Your task to perform on an android device: Go to Reddit.com Image 0: 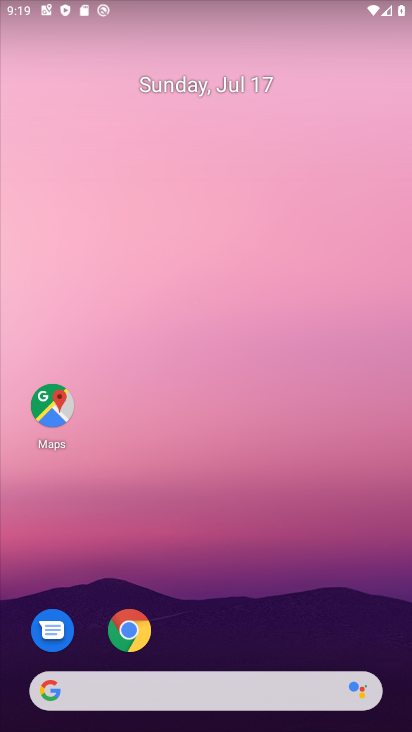
Step 0: drag from (279, 678) to (311, 2)
Your task to perform on an android device: Go to Reddit.com Image 1: 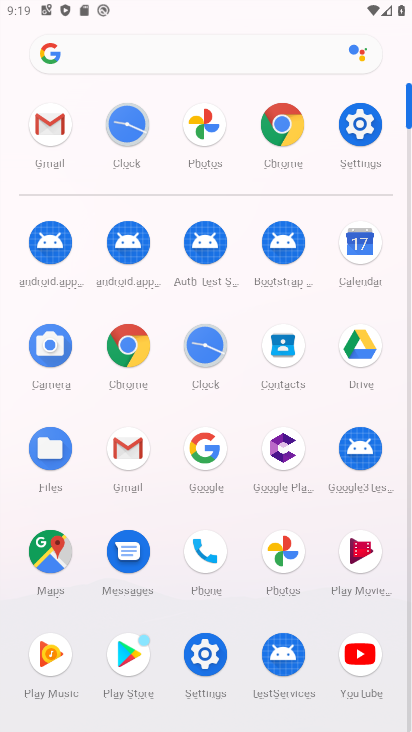
Step 1: click (131, 339)
Your task to perform on an android device: Go to Reddit.com Image 2: 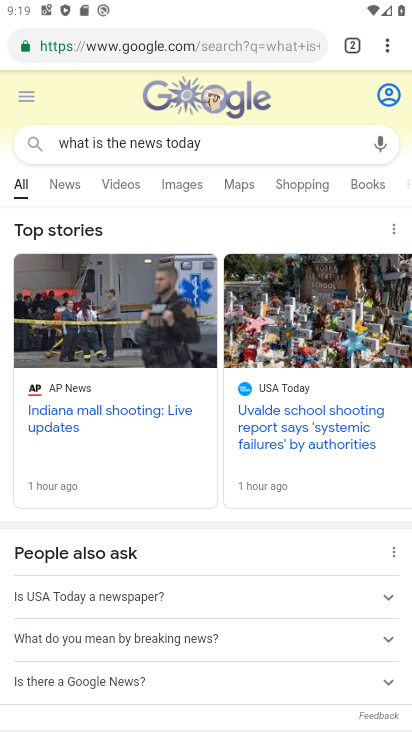
Step 2: drag from (378, 44) to (256, 520)
Your task to perform on an android device: Go to Reddit.com Image 3: 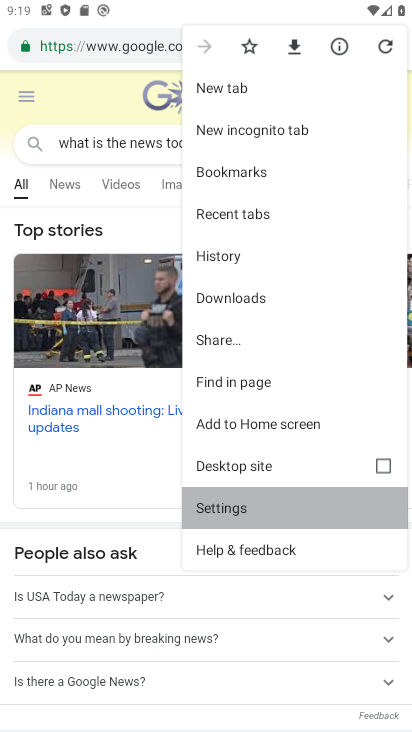
Step 3: click (254, 515)
Your task to perform on an android device: Go to Reddit.com Image 4: 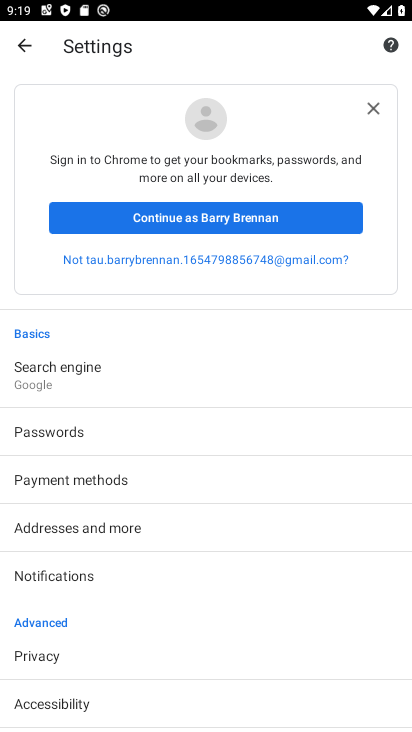
Step 4: press back button
Your task to perform on an android device: Go to Reddit.com Image 5: 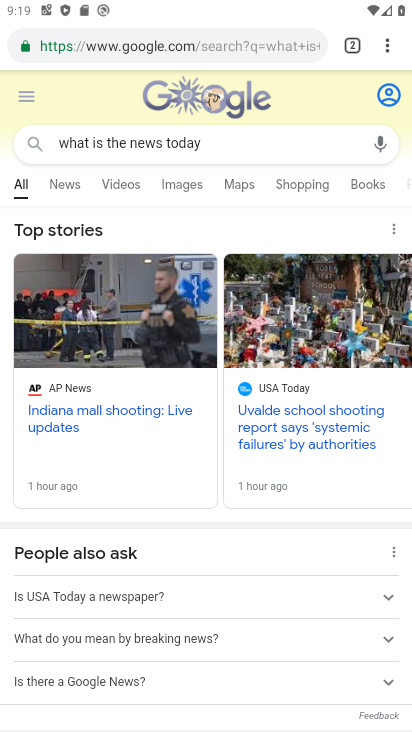
Step 5: click (174, 47)
Your task to perform on an android device: Go to Reddit.com Image 6: 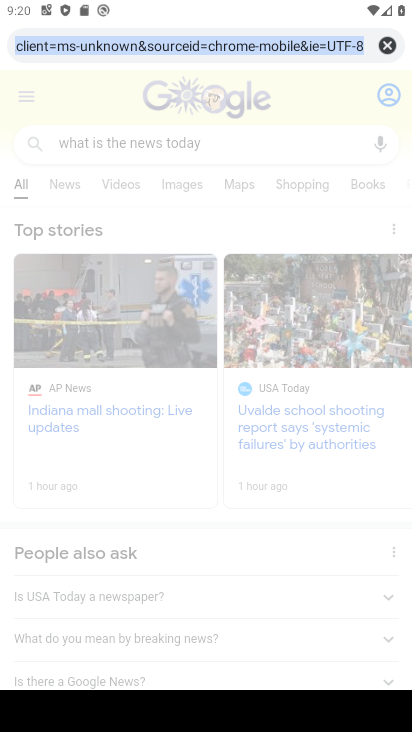
Step 6: type "reddit.com"
Your task to perform on an android device: Go to Reddit.com Image 7: 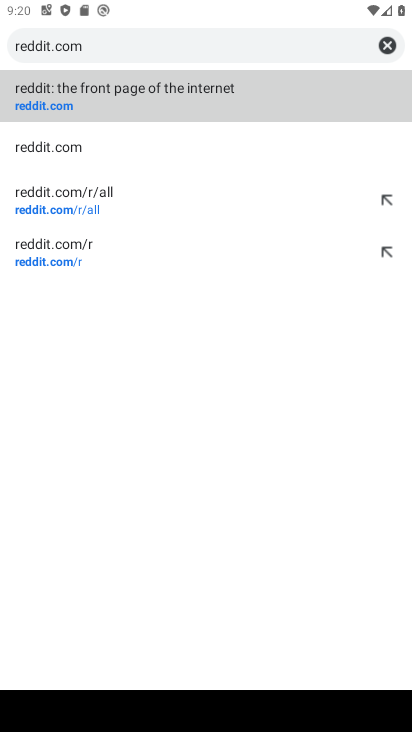
Step 7: click (186, 86)
Your task to perform on an android device: Go to Reddit.com Image 8: 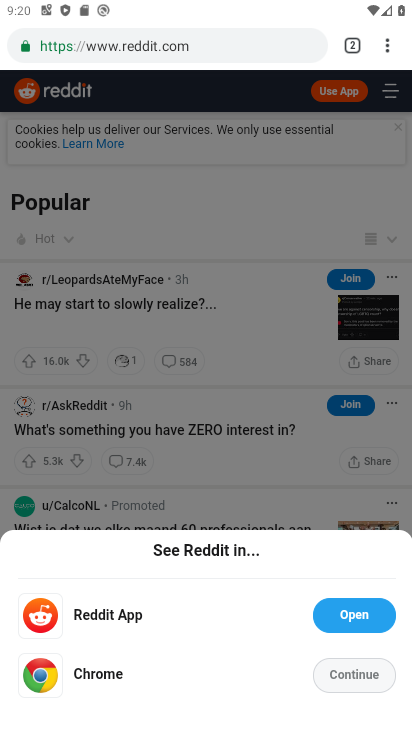
Step 8: task complete